Your task to perform on an android device: toggle airplane mode Image 0: 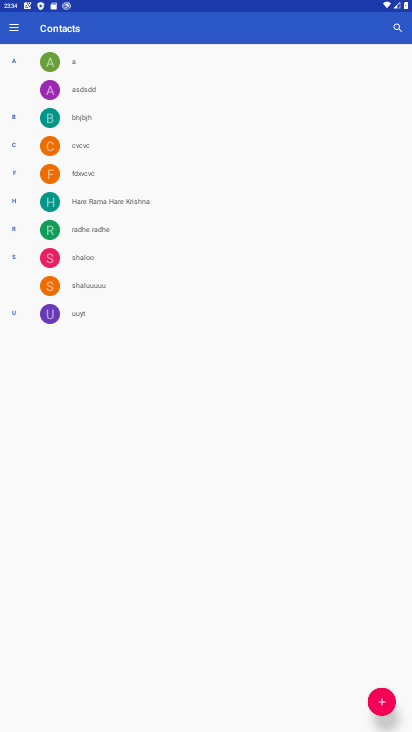
Step 0: press home button
Your task to perform on an android device: toggle airplane mode Image 1: 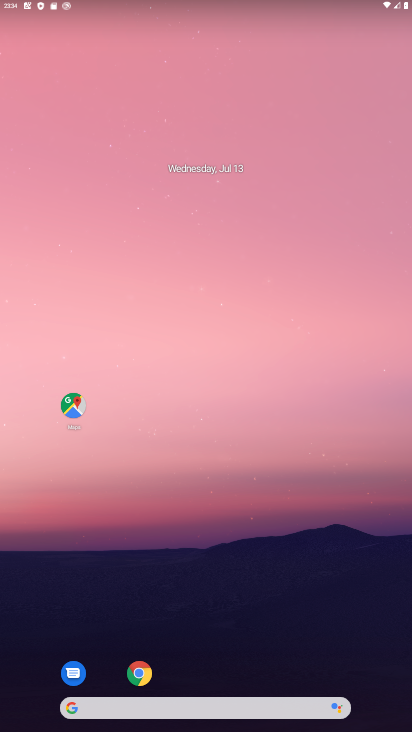
Step 1: drag from (231, 644) to (230, 72)
Your task to perform on an android device: toggle airplane mode Image 2: 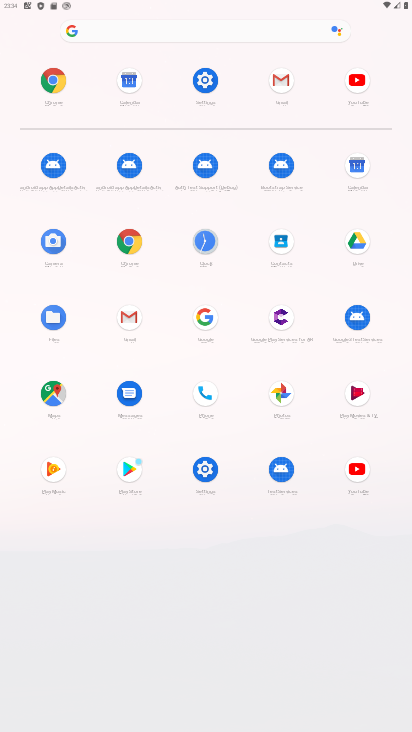
Step 2: click (209, 84)
Your task to perform on an android device: toggle airplane mode Image 3: 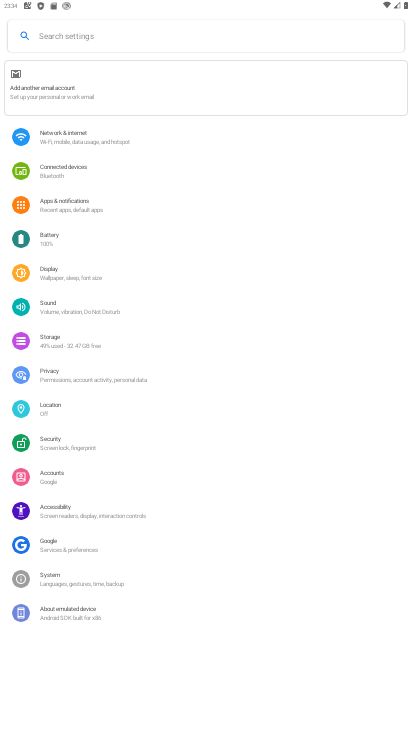
Step 3: click (98, 139)
Your task to perform on an android device: toggle airplane mode Image 4: 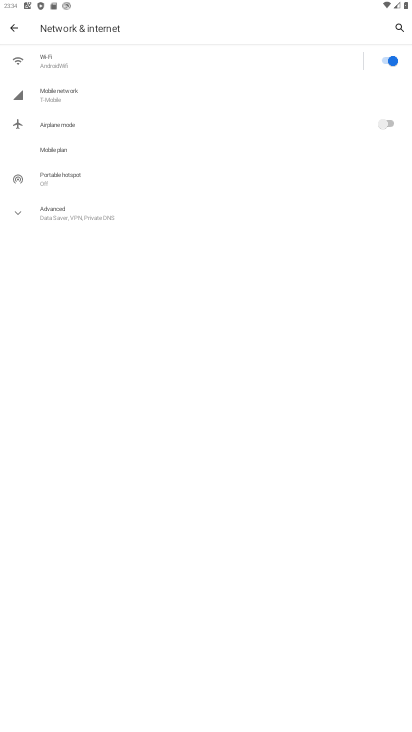
Step 4: click (382, 124)
Your task to perform on an android device: toggle airplane mode Image 5: 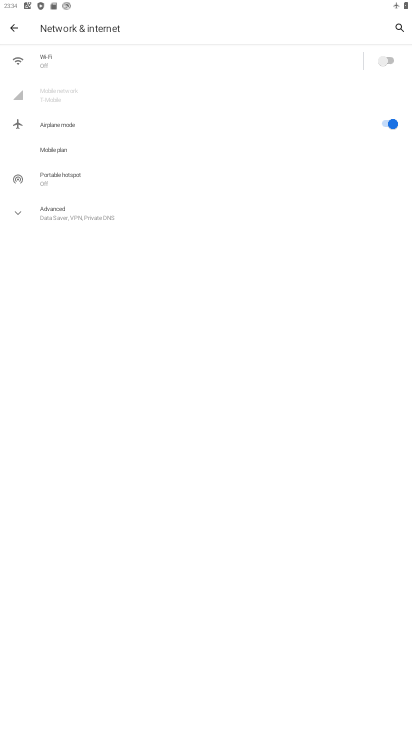
Step 5: task complete